Your task to perform on an android device: turn off smart reply in the gmail app Image 0: 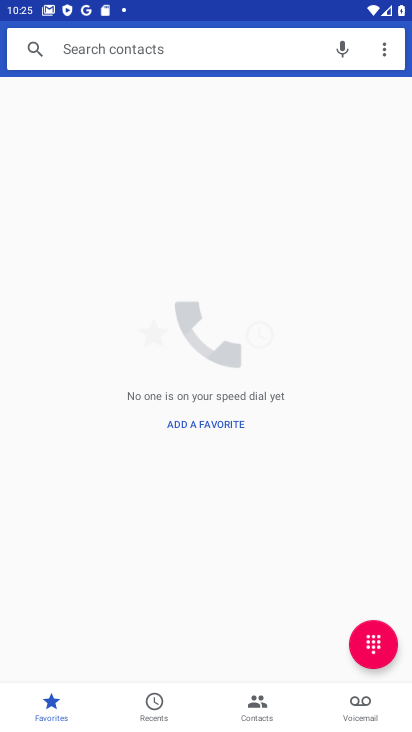
Step 0: drag from (201, 562) to (237, 203)
Your task to perform on an android device: turn off smart reply in the gmail app Image 1: 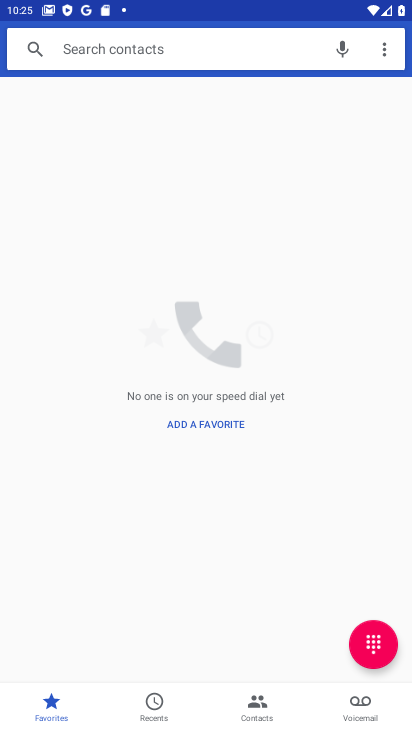
Step 1: press home button
Your task to perform on an android device: turn off smart reply in the gmail app Image 2: 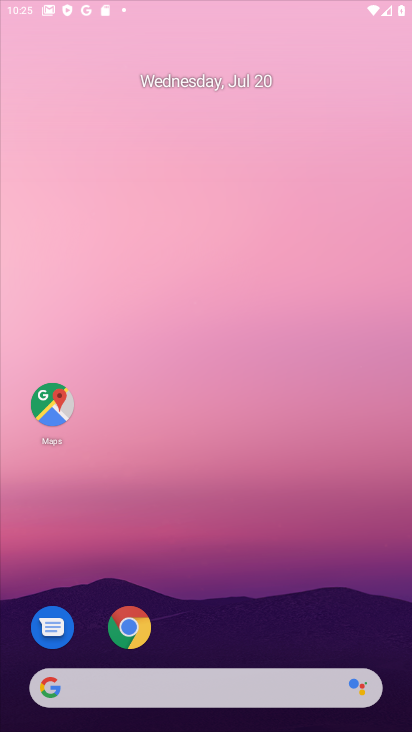
Step 2: drag from (140, 596) to (228, 0)
Your task to perform on an android device: turn off smart reply in the gmail app Image 3: 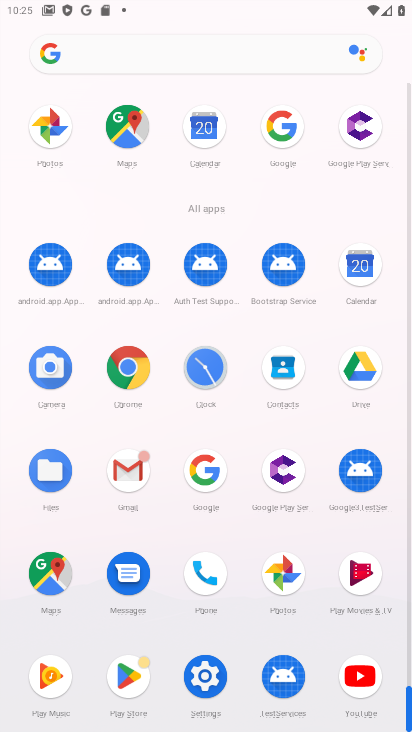
Step 3: click (120, 482)
Your task to perform on an android device: turn off smart reply in the gmail app Image 4: 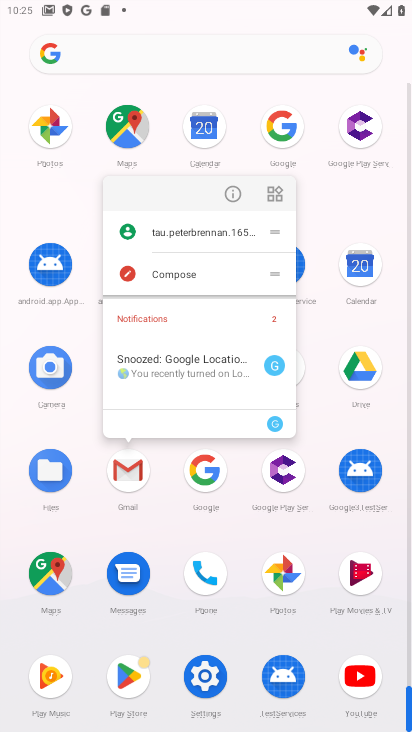
Step 4: click (224, 197)
Your task to perform on an android device: turn off smart reply in the gmail app Image 5: 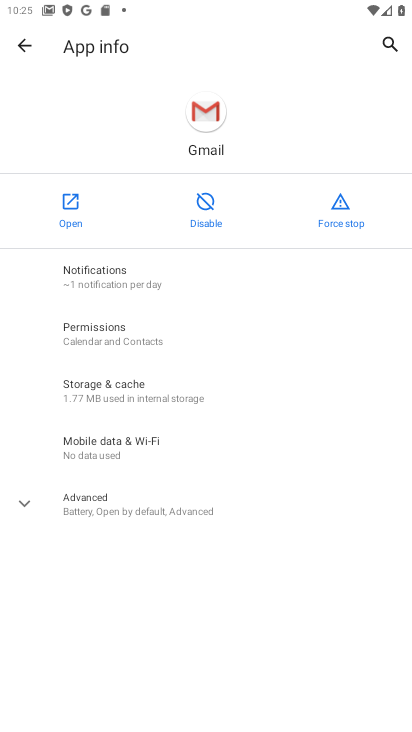
Step 5: click (74, 203)
Your task to perform on an android device: turn off smart reply in the gmail app Image 6: 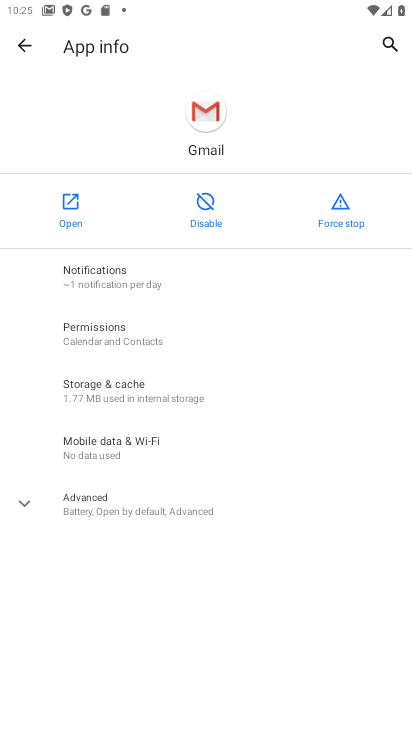
Step 6: click (74, 203)
Your task to perform on an android device: turn off smart reply in the gmail app Image 7: 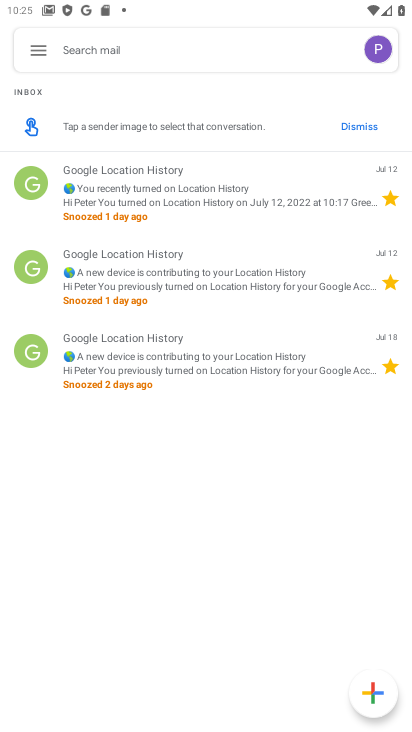
Step 7: drag from (241, 574) to (214, 295)
Your task to perform on an android device: turn off smart reply in the gmail app Image 8: 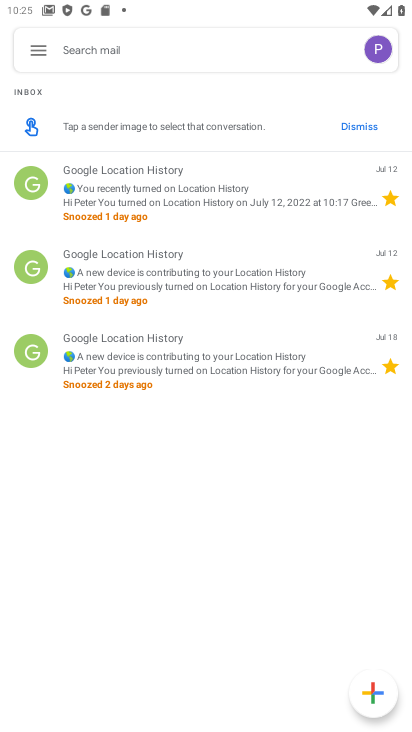
Step 8: click (384, 46)
Your task to perform on an android device: turn off smart reply in the gmail app Image 9: 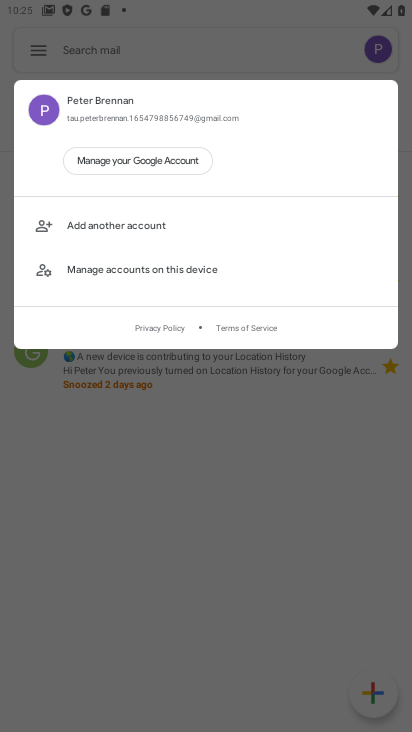
Step 9: click (46, 37)
Your task to perform on an android device: turn off smart reply in the gmail app Image 10: 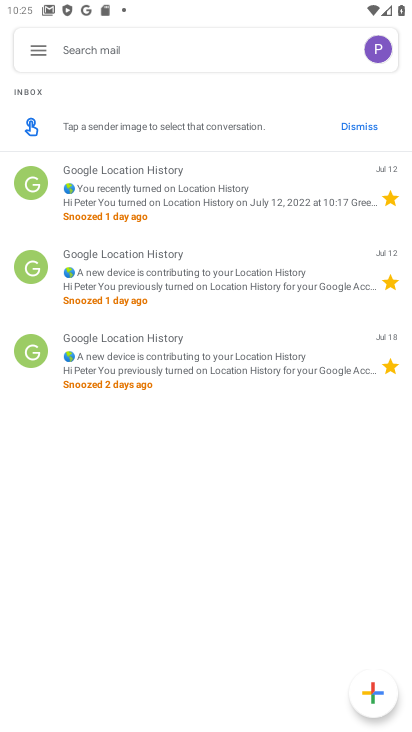
Step 10: click (31, 53)
Your task to perform on an android device: turn off smart reply in the gmail app Image 11: 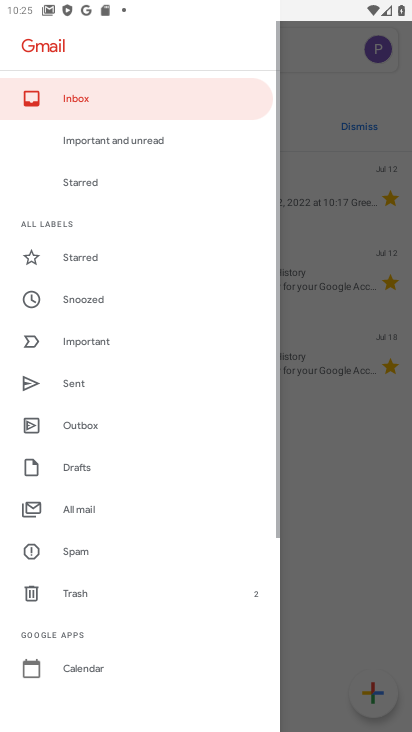
Step 11: drag from (92, 580) to (174, 18)
Your task to perform on an android device: turn off smart reply in the gmail app Image 12: 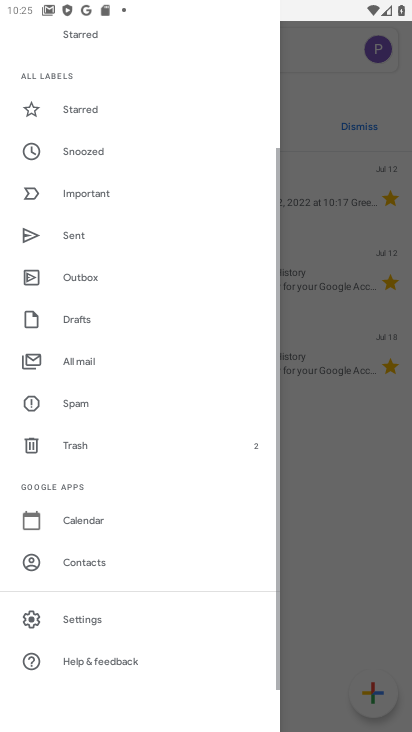
Step 12: click (63, 624)
Your task to perform on an android device: turn off smart reply in the gmail app Image 13: 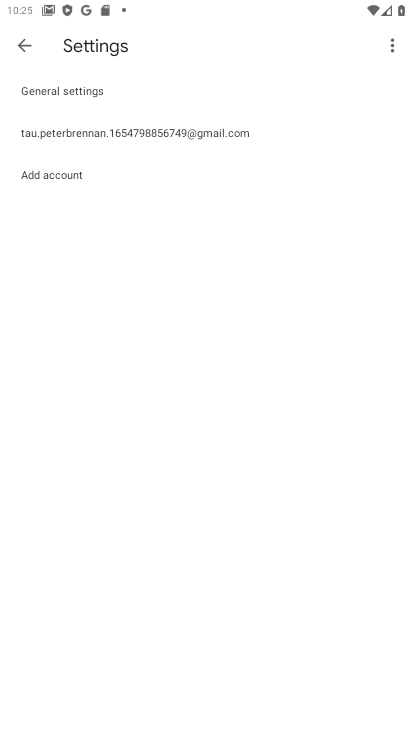
Step 13: drag from (175, 572) to (173, 186)
Your task to perform on an android device: turn off smart reply in the gmail app Image 14: 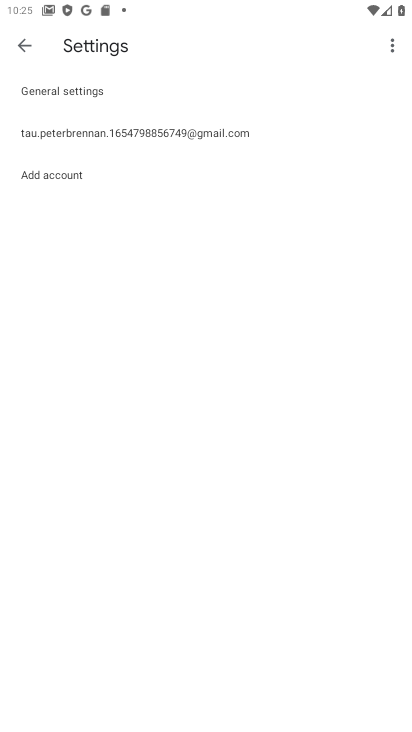
Step 14: click (139, 137)
Your task to perform on an android device: turn off smart reply in the gmail app Image 15: 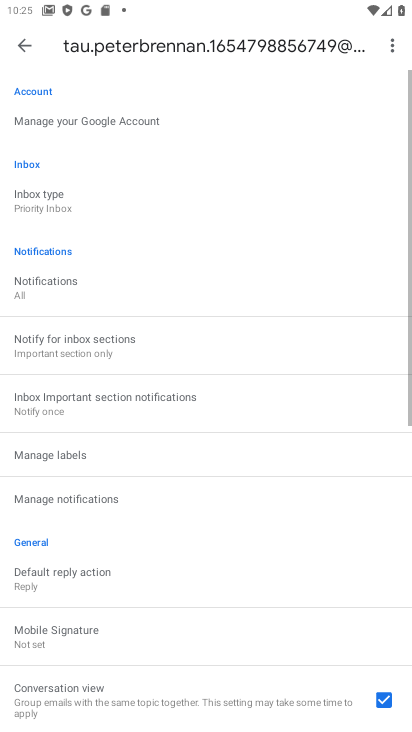
Step 15: drag from (194, 576) to (258, 102)
Your task to perform on an android device: turn off smart reply in the gmail app Image 16: 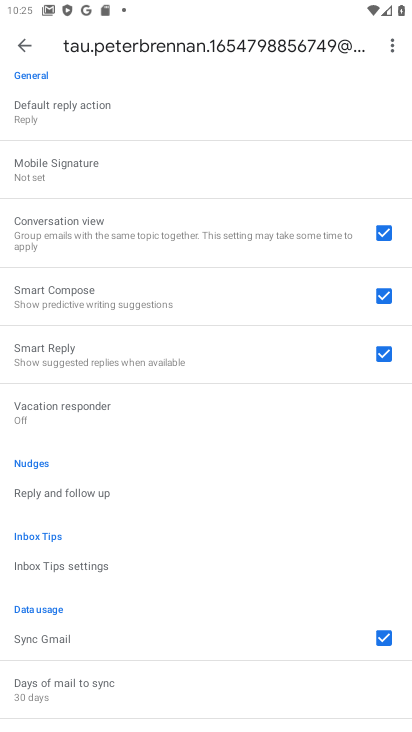
Step 16: click (373, 361)
Your task to perform on an android device: turn off smart reply in the gmail app Image 17: 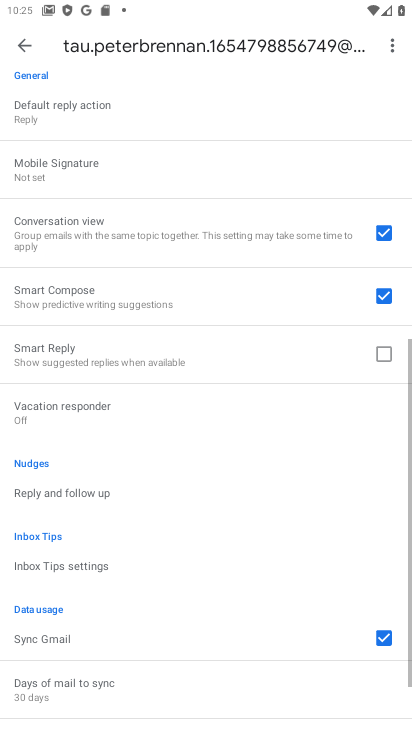
Step 17: task complete